Your task to perform on an android device: change the upload size in google photos Image 0: 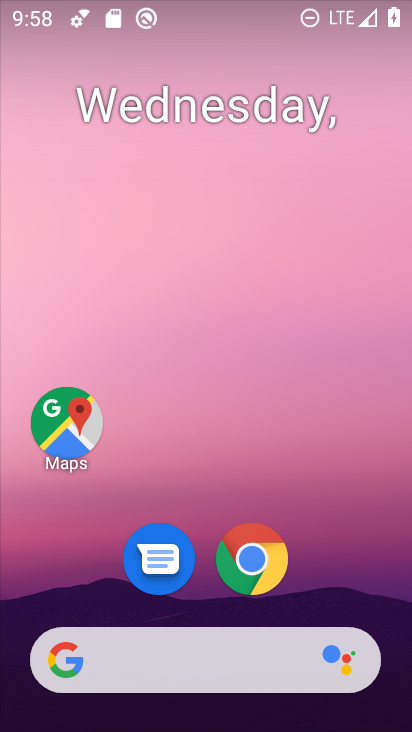
Step 0: drag from (276, 409) to (230, 23)
Your task to perform on an android device: change the upload size in google photos Image 1: 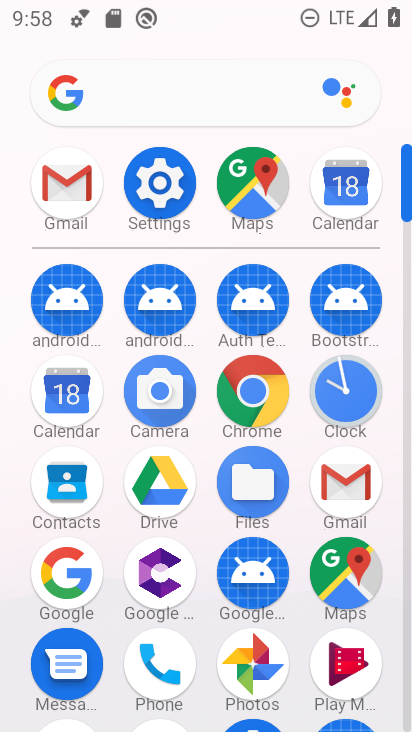
Step 1: drag from (207, 378) to (221, 199)
Your task to perform on an android device: change the upload size in google photos Image 2: 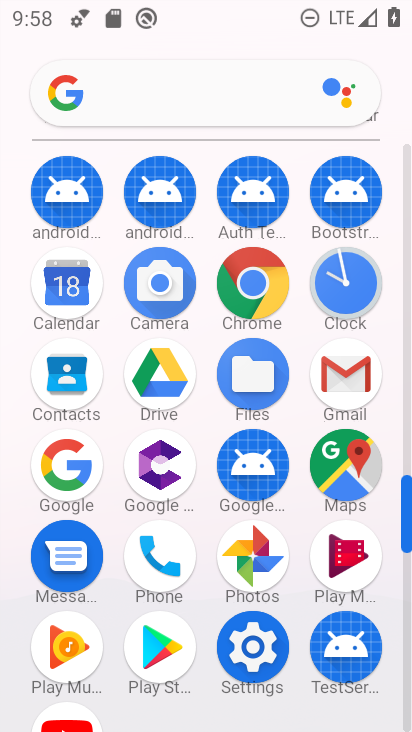
Step 2: click (245, 547)
Your task to perform on an android device: change the upload size in google photos Image 3: 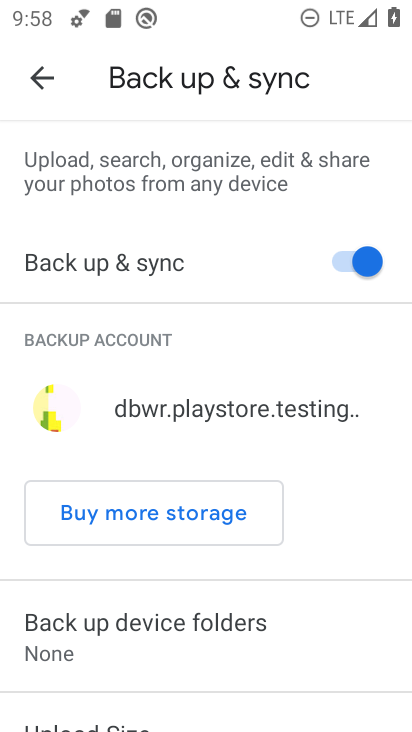
Step 3: click (42, 73)
Your task to perform on an android device: change the upload size in google photos Image 4: 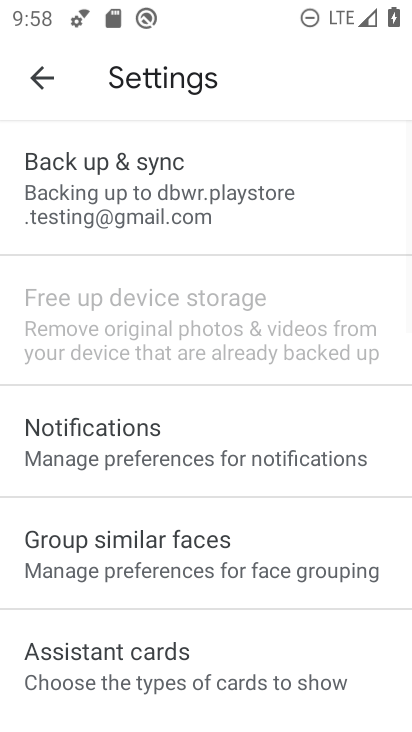
Step 4: click (91, 178)
Your task to perform on an android device: change the upload size in google photos Image 5: 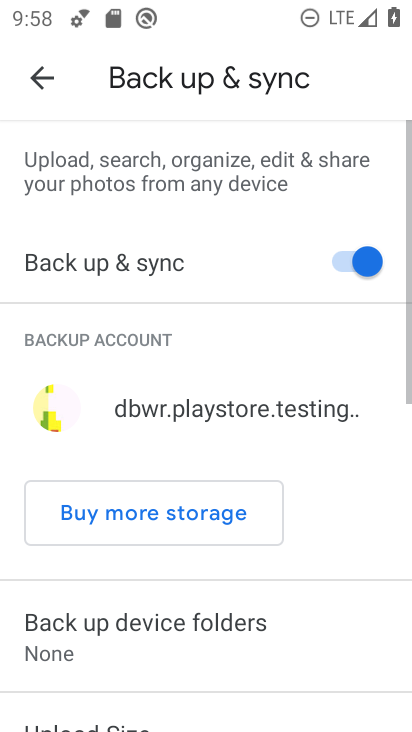
Step 5: drag from (206, 652) to (222, 301)
Your task to perform on an android device: change the upload size in google photos Image 6: 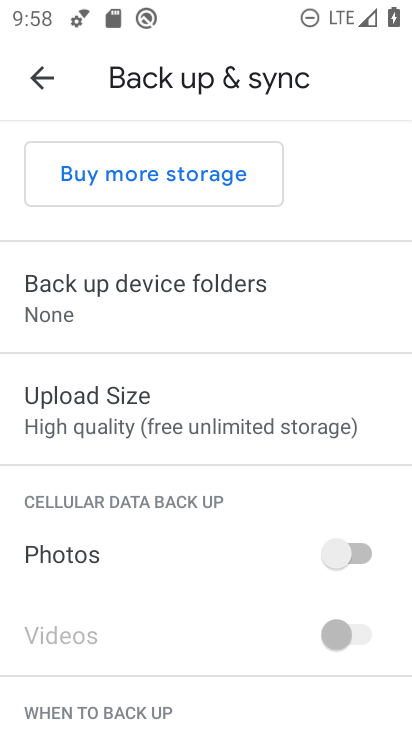
Step 6: click (218, 415)
Your task to perform on an android device: change the upload size in google photos Image 7: 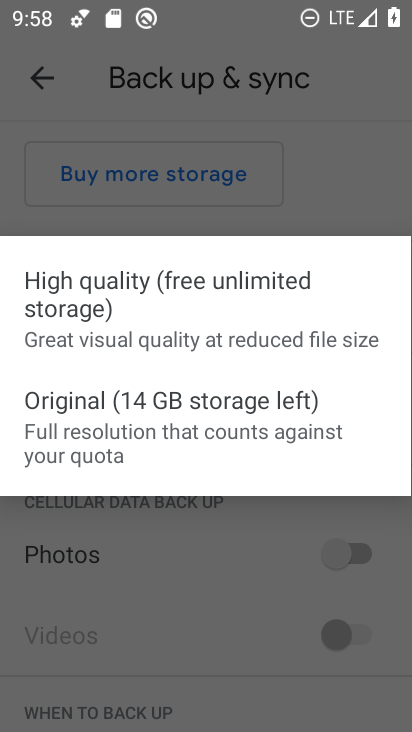
Step 7: click (218, 415)
Your task to perform on an android device: change the upload size in google photos Image 8: 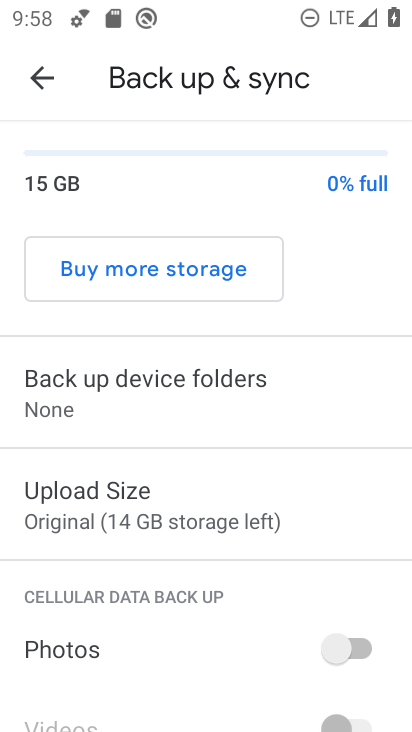
Step 8: task complete